Your task to perform on an android device: check battery use Image 0: 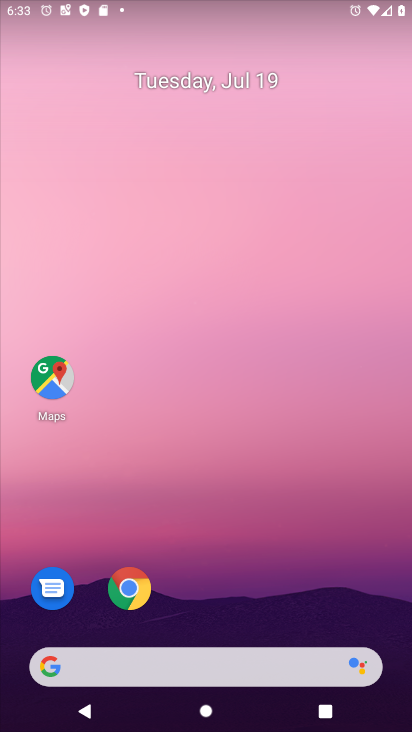
Step 0: drag from (193, 5) to (199, 564)
Your task to perform on an android device: check battery use Image 1: 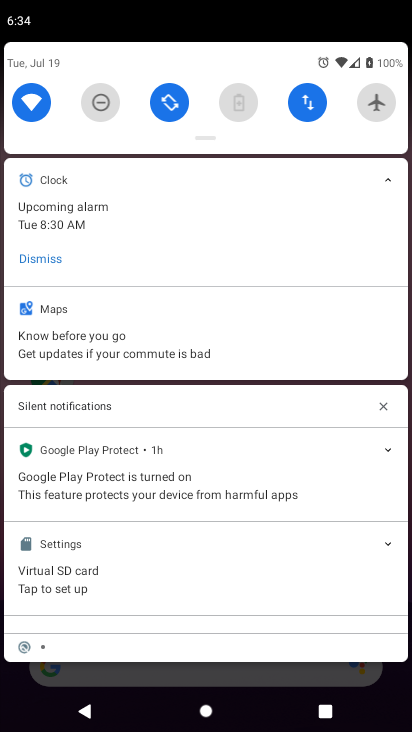
Step 1: click (240, 632)
Your task to perform on an android device: check battery use Image 2: 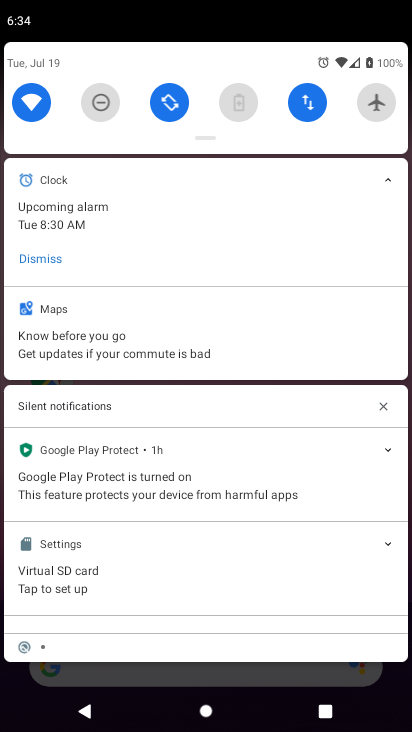
Step 2: drag from (279, 14) to (267, 417)
Your task to perform on an android device: check battery use Image 3: 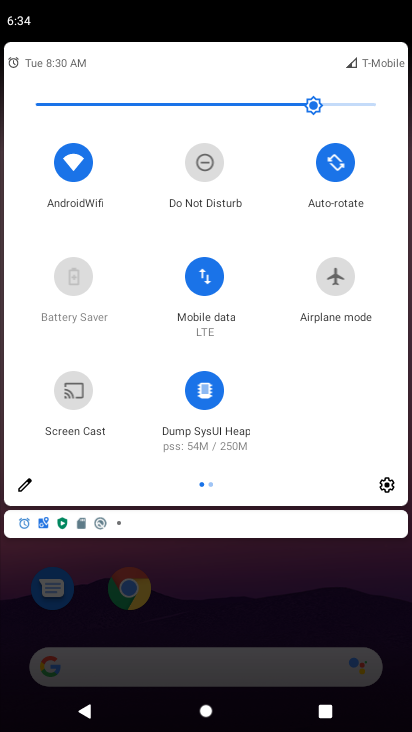
Step 3: click (240, 110)
Your task to perform on an android device: check battery use Image 4: 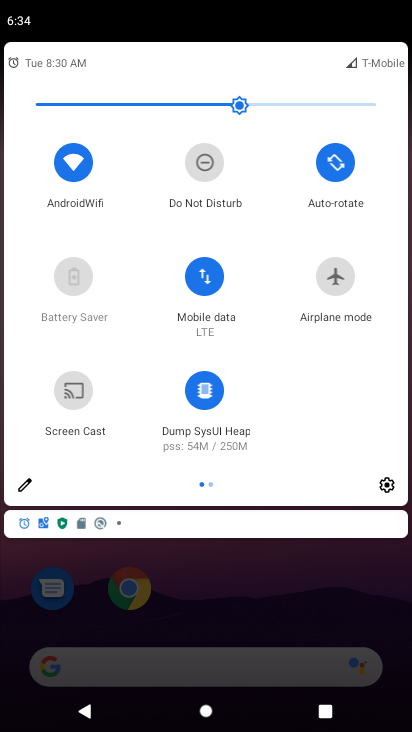
Step 4: click (74, 290)
Your task to perform on an android device: check battery use Image 5: 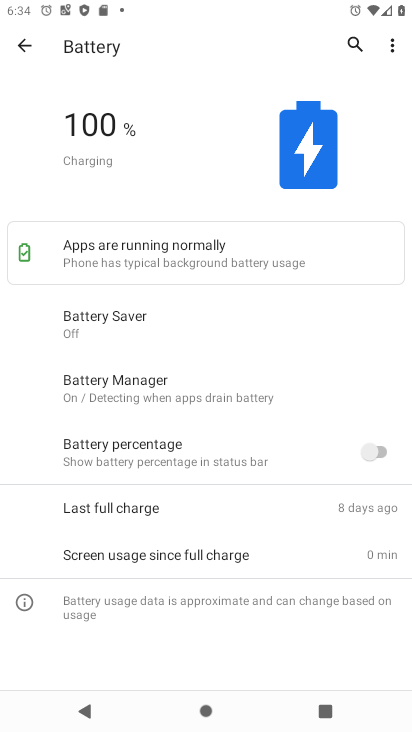
Step 5: click (398, 51)
Your task to perform on an android device: check battery use Image 6: 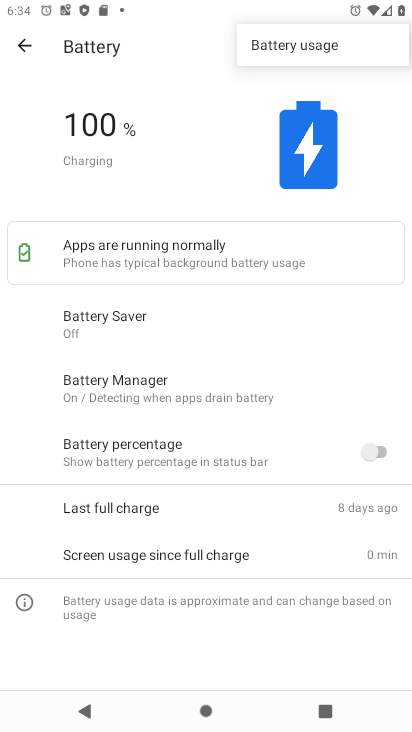
Step 6: click (341, 51)
Your task to perform on an android device: check battery use Image 7: 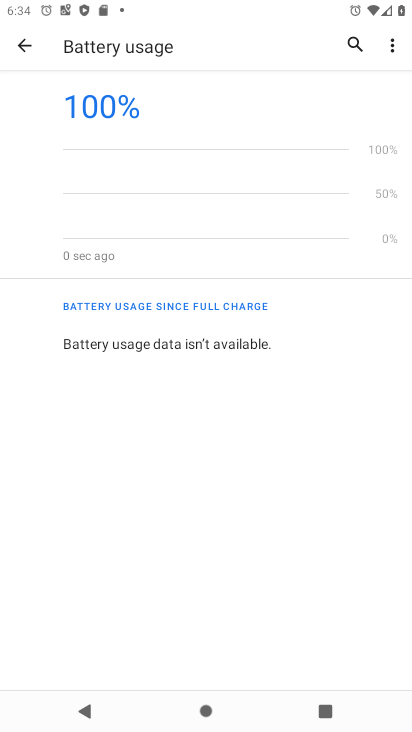
Step 7: task complete